Your task to perform on an android device: Search for a new foundation on Sephora Image 0: 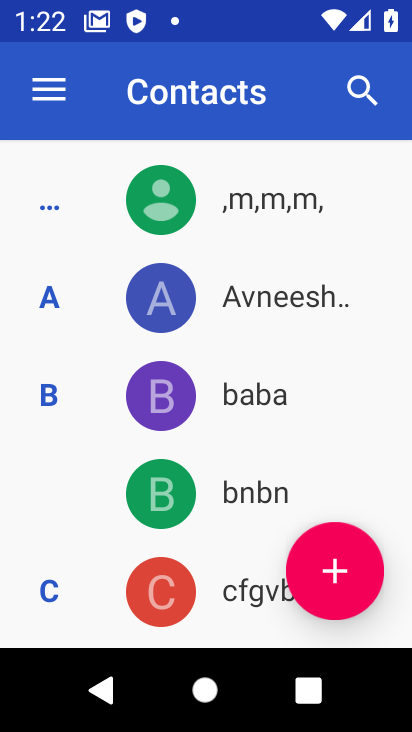
Step 0: press home button
Your task to perform on an android device: Search for a new foundation on Sephora Image 1: 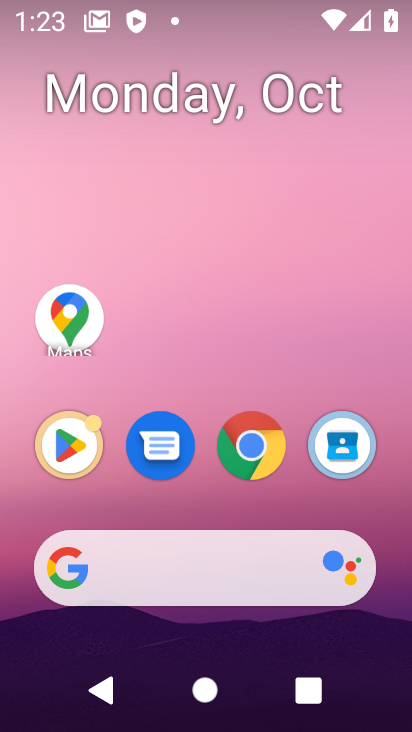
Step 1: click (205, 582)
Your task to perform on an android device: Search for a new foundation on Sephora Image 2: 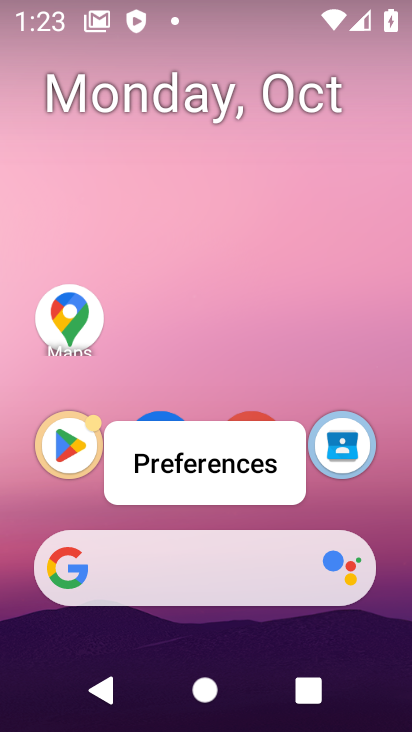
Step 2: click (205, 582)
Your task to perform on an android device: Search for a new foundation on Sephora Image 3: 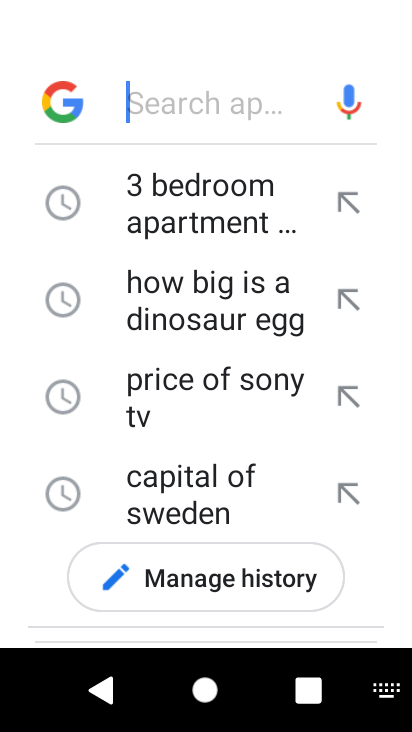
Step 3: type "Sephora"
Your task to perform on an android device: Search for a new foundation on Sephora Image 4: 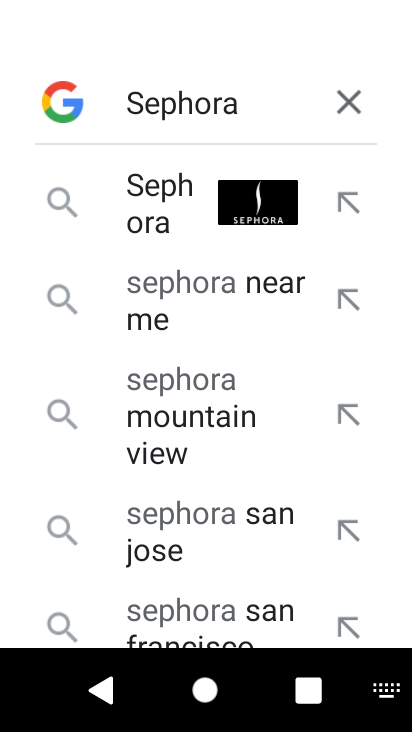
Step 4: click (154, 214)
Your task to perform on an android device: Search for a new foundation on Sephora Image 5: 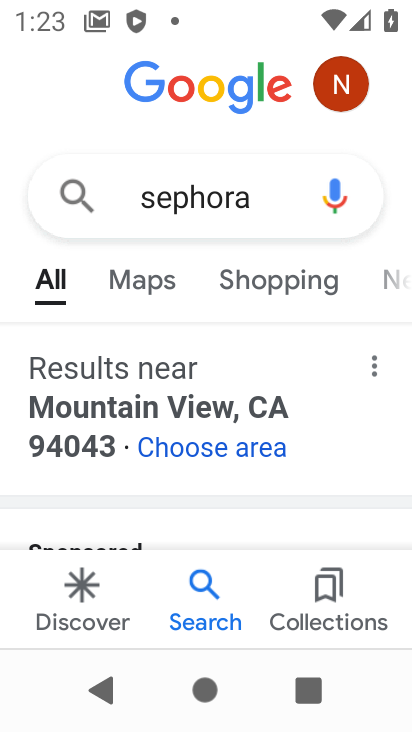
Step 5: drag from (271, 485) to (271, 201)
Your task to perform on an android device: Search for a new foundation on Sephora Image 6: 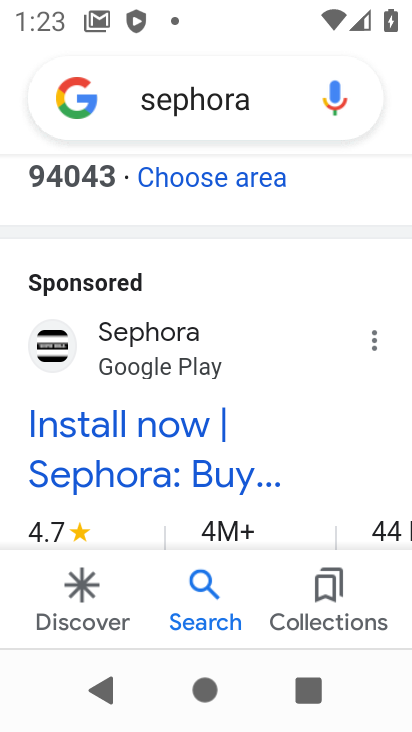
Step 6: drag from (228, 423) to (229, 225)
Your task to perform on an android device: Search for a new foundation on Sephora Image 7: 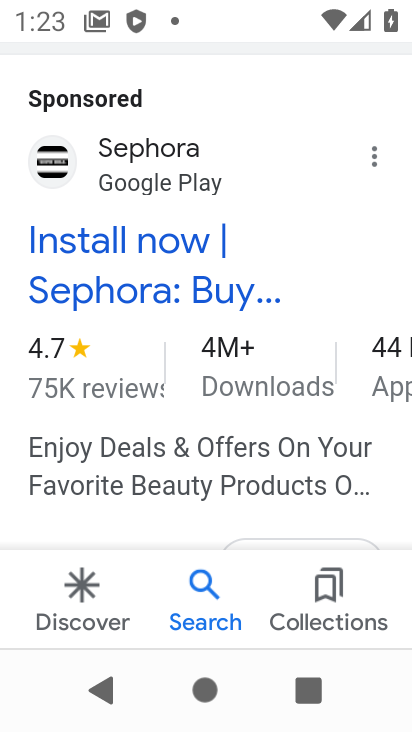
Step 7: drag from (233, 459) to (237, 169)
Your task to perform on an android device: Search for a new foundation on Sephora Image 8: 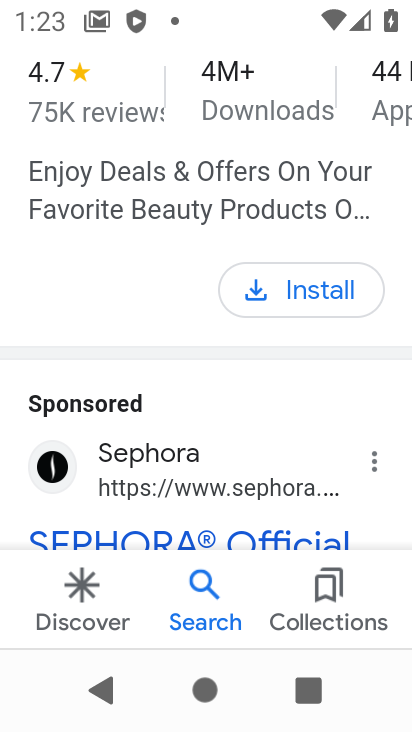
Step 8: drag from (210, 416) to (186, 181)
Your task to perform on an android device: Search for a new foundation on Sephora Image 9: 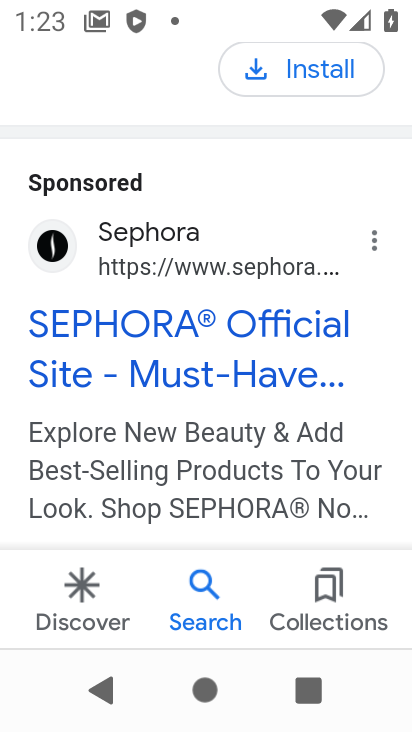
Step 9: click (259, 320)
Your task to perform on an android device: Search for a new foundation on Sephora Image 10: 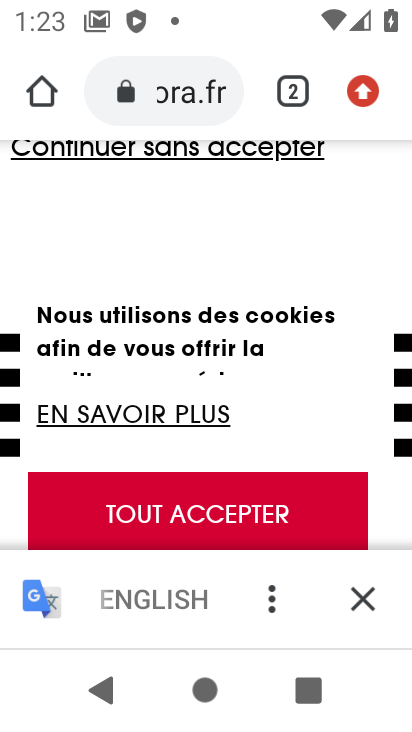
Step 10: drag from (266, 514) to (274, 320)
Your task to perform on an android device: Search for a new foundation on Sephora Image 11: 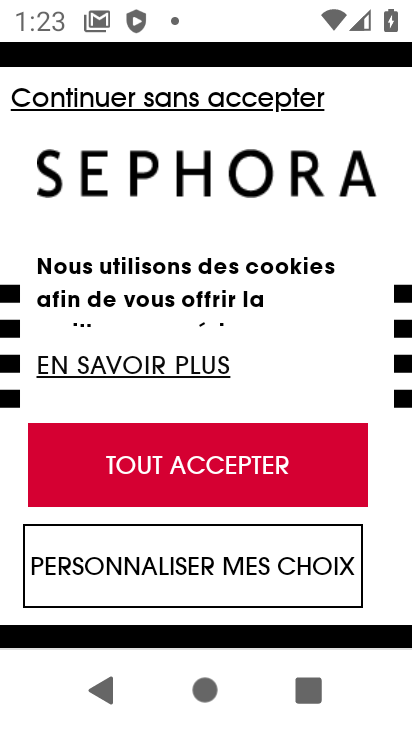
Step 11: drag from (383, 553) to (375, 239)
Your task to perform on an android device: Search for a new foundation on Sephora Image 12: 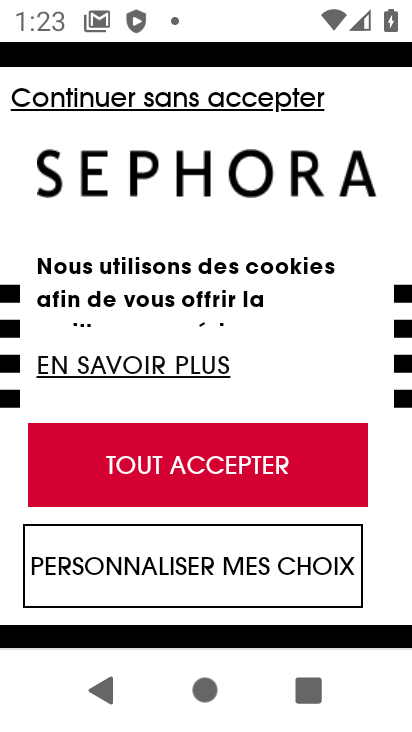
Step 12: drag from (376, 510) to (351, 217)
Your task to perform on an android device: Search for a new foundation on Sephora Image 13: 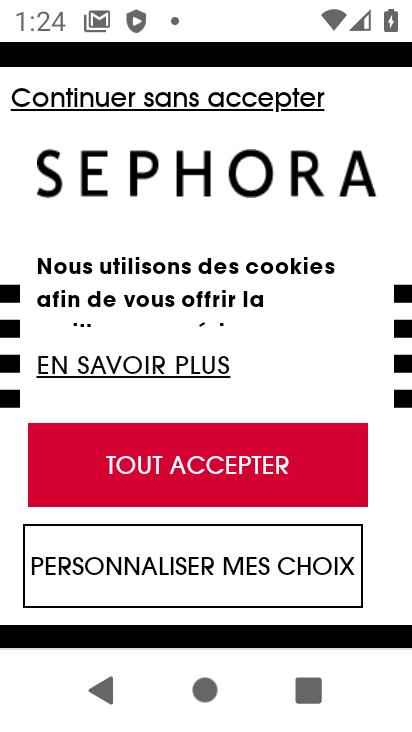
Step 13: drag from (377, 553) to (376, 247)
Your task to perform on an android device: Search for a new foundation on Sephora Image 14: 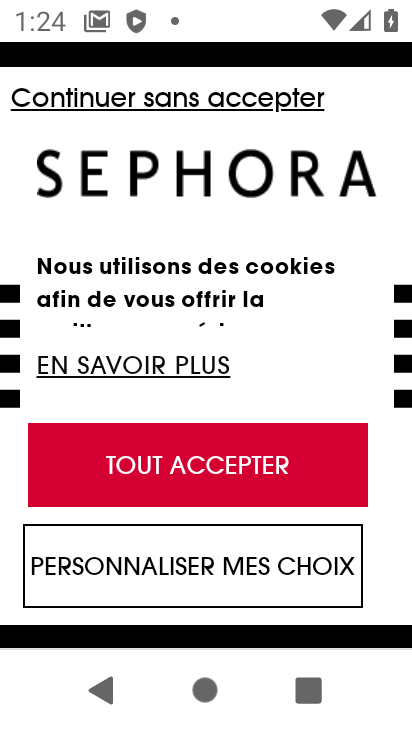
Step 14: drag from (344, 393) to (372, 189)
Your task to perform on an android device: Search for a new foundation on Sephora Image 15: 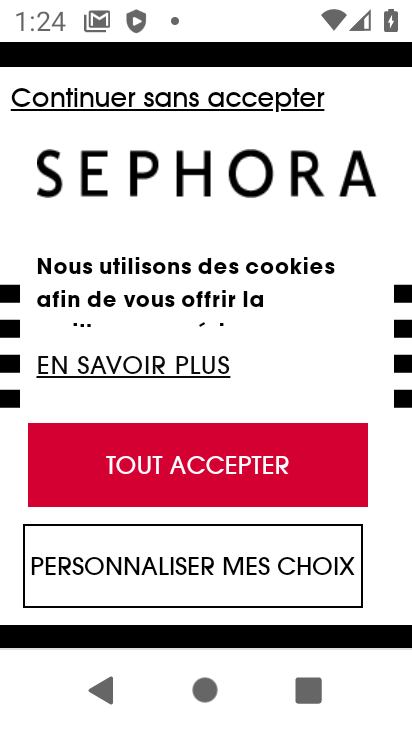
Step 15: click (223, 99)
Your task to perform on an android device: Search for a new foundation on Sephora Image 16: 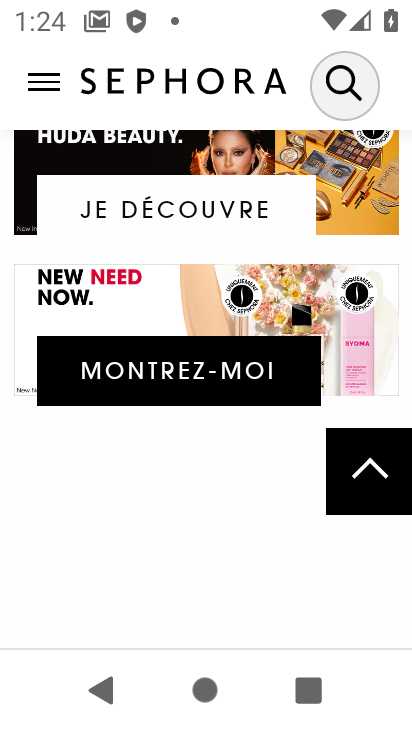
Step 16: click (343, 81)
Your task to perform on an android device: Search for a new foundation on Sephora Image 17: 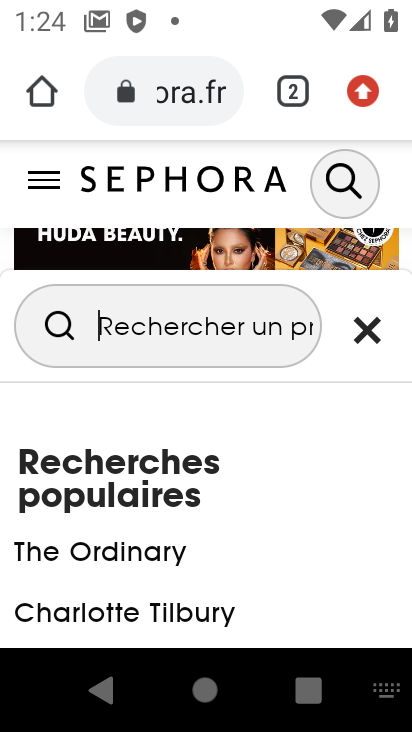
Step 17: type "new foundation"
Your task to perform on an android device: Search for a new foundation on Sephora Image 18: 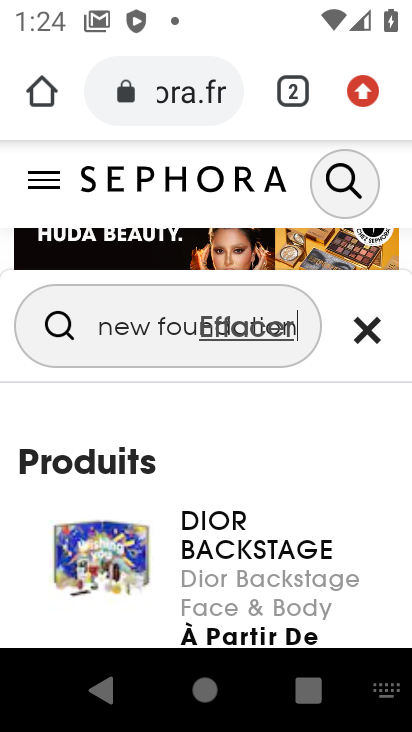
Step 18: type ""
Your task to perform on an android device: Search for a new foundation on Sephora Image 19: 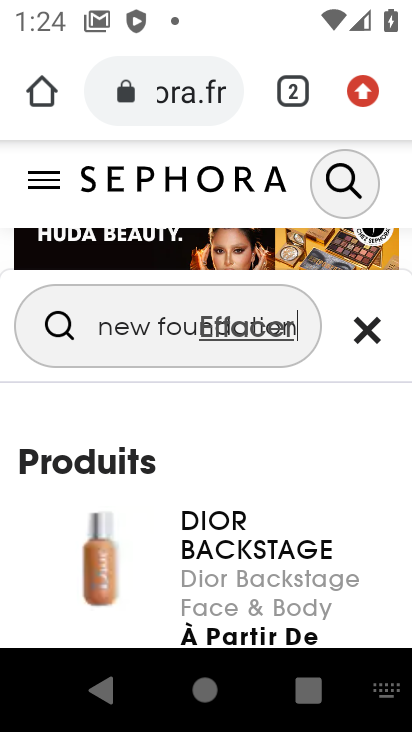
Step 19: task complete